Your task to perform on an android device: Open calendar and show me the fourth week of next month Image 0: 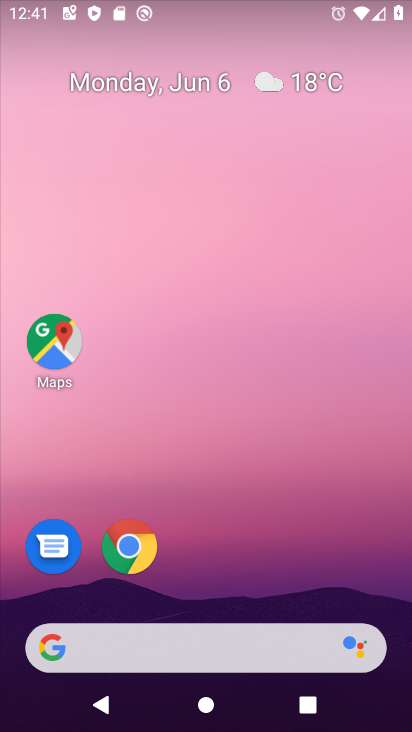
Step 0: press home button
Your task to perform on an android device: Open calendar and show me the fourth week of next month Image 1: 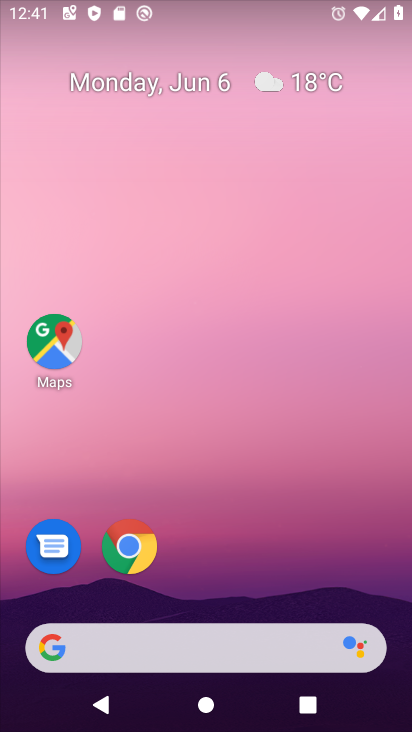
Step 1: drag from (244, 563) to (261, 153)
Your task to perform on an android device: Open calendar and show me the fourth week of next month Image 2: 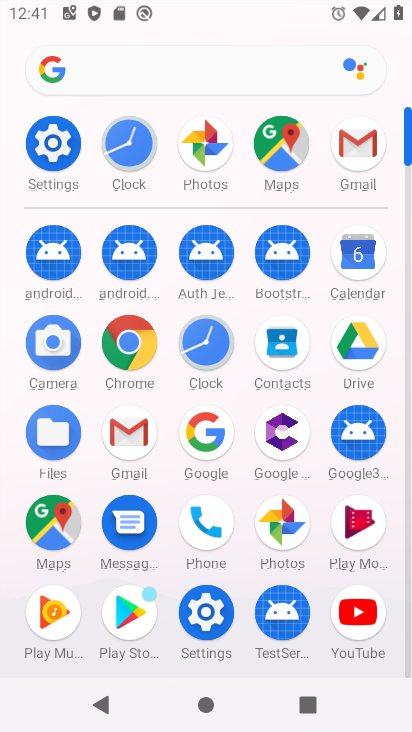
Step 2: click (366, 260)
Your task to perform on an android device: Open calendar and show me the fourth week of next month Image 3: 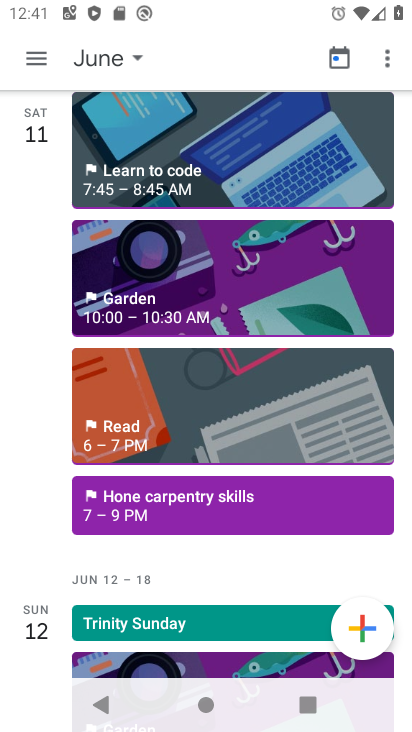
Step 3: click (41, 58)
Your task to perform on an android device: Open calendar and show me the fourth week of next month Image 4: 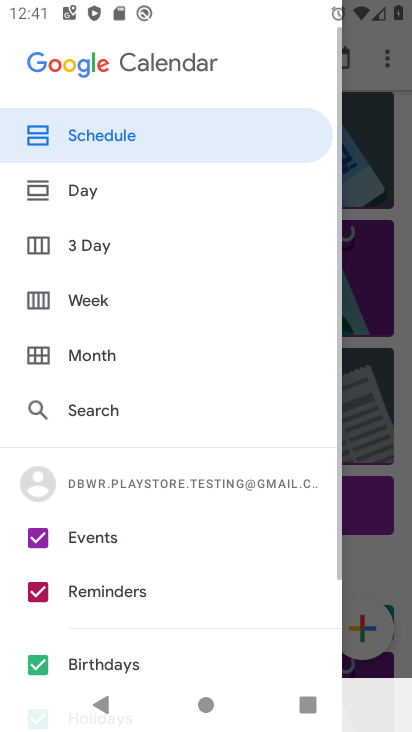
Step 4: click (101, 357)
Your task to perform on an android device: Open calendar and show me the fourth week of next month Image 5: 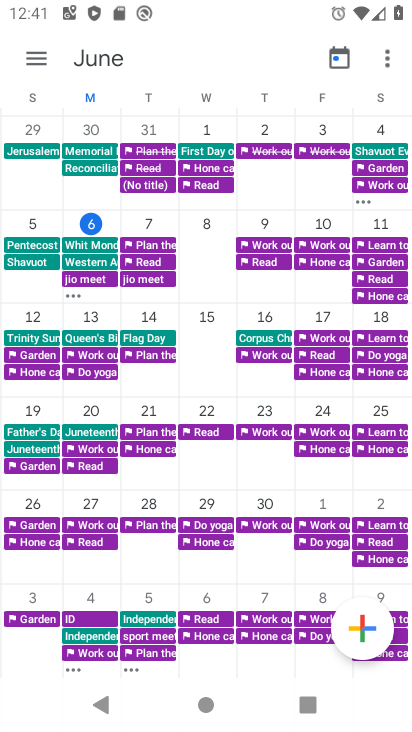
Step 5: drag from (295, 286) to (0, 249)
Your task to perform on an android device: Open calendar and show me the fourth week of next month Image 6: 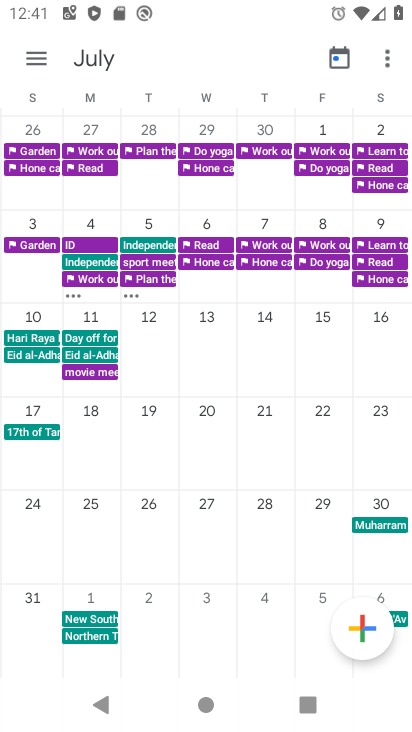
Step 6: click (40, 527)
Your task to perform on an android device: Open calendar and show me the fourth week of next month Image 7: 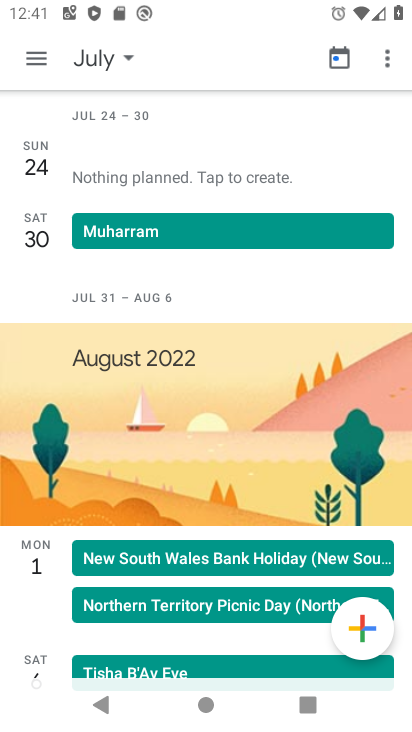
Step 7: click (43, 65)
Your task to perform on an android device: Open calendar and show me the fourth week of next month Image 8: 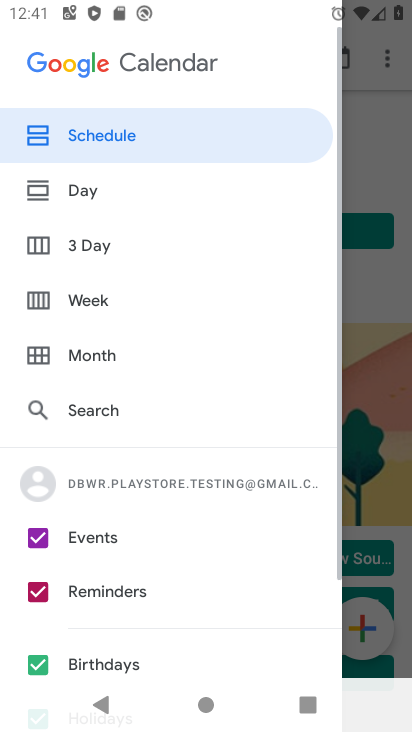
Step 8: click (106, 145)
Your task to perform on an android device: Open calendar and show me the fourth week of next month Image 9: 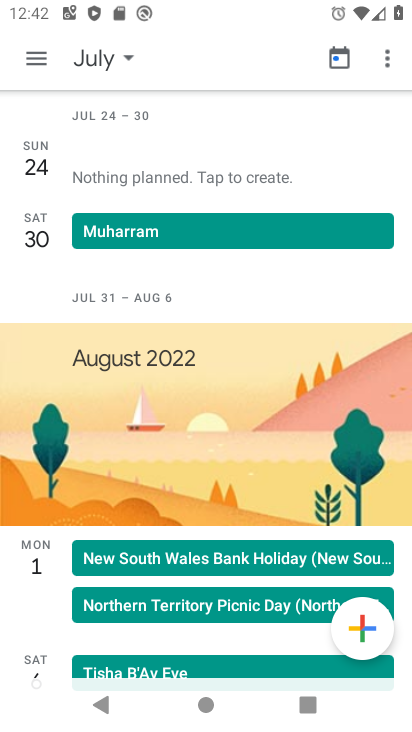
Step 9: task complete